Your task to perform on an android device: Show me popular games on the Play Store Image 0: 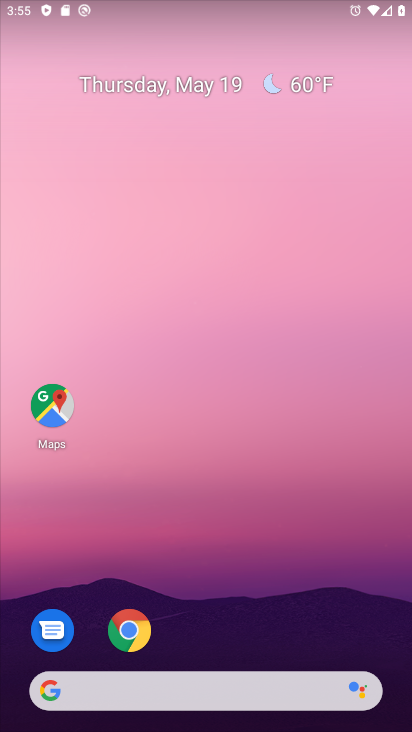
Step 0: drag from (213, 725) to (217, 237)
Your task to perform on an android device: Show me popular games on the Play Store Image 1: 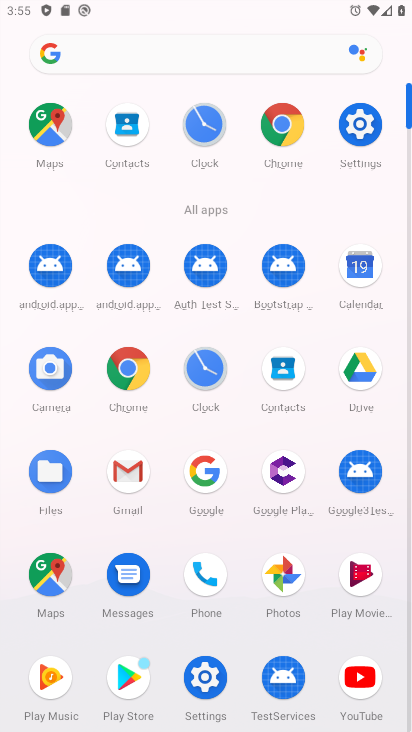
Step 1: click (127, 673)
Your task to perform on an android device: Show me popular games on the Play Store Image 2: 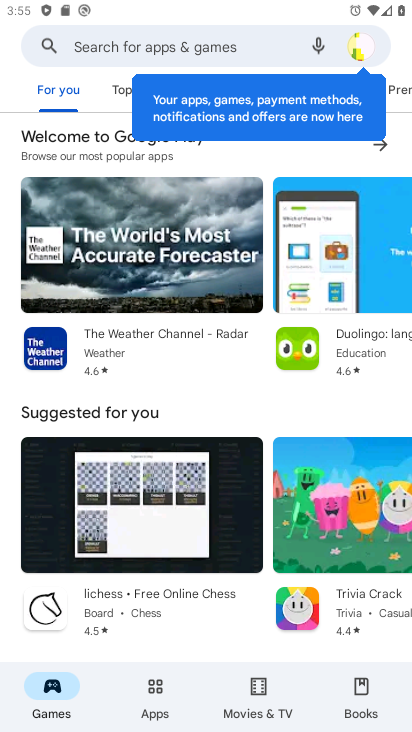
Step 2: drag from (176, 632) to (177, 207)
Your task to perform on an android device: Show me popular games on the Play Store Image 3: 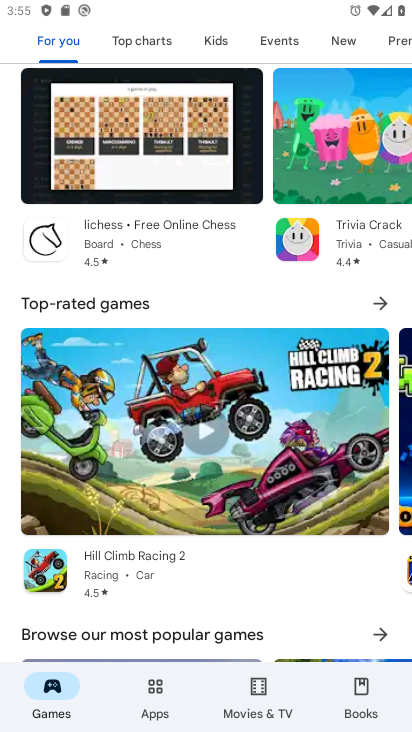
Step 3: drag from (184, 633) to (186, 199)
Your task to perform on an android device: Show me popular games on the Play Store Image 4: 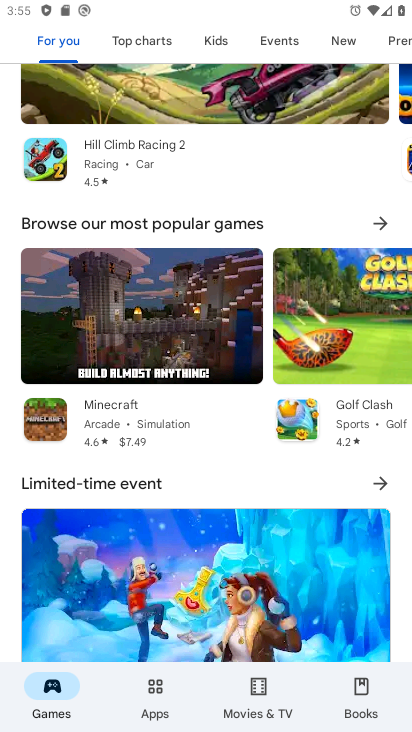
Step 4: click (379, 223)
Your task to perform on an android device: Show me popular games on the Play Store Image 5: 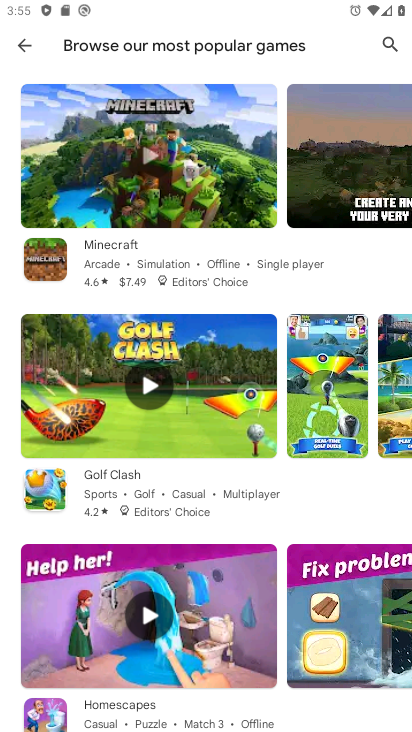
Step 5: task complete